Your task to perform on an android device: toggle sleep mode Image 0: 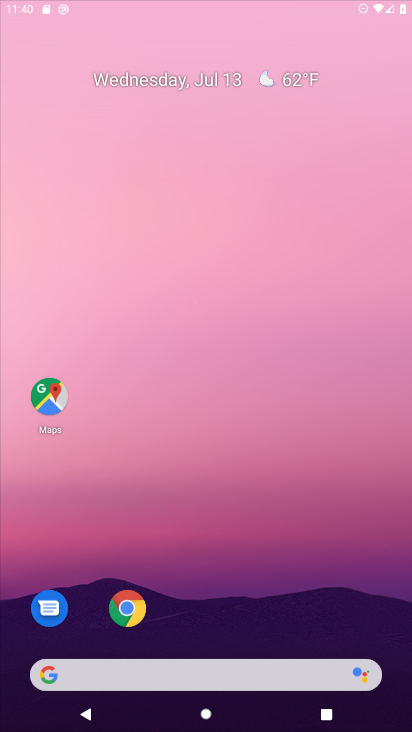
Step 0: drag from (246, 630) to (265, 222)
Your task to perform on an android device: toggle sleep mode Image 1: 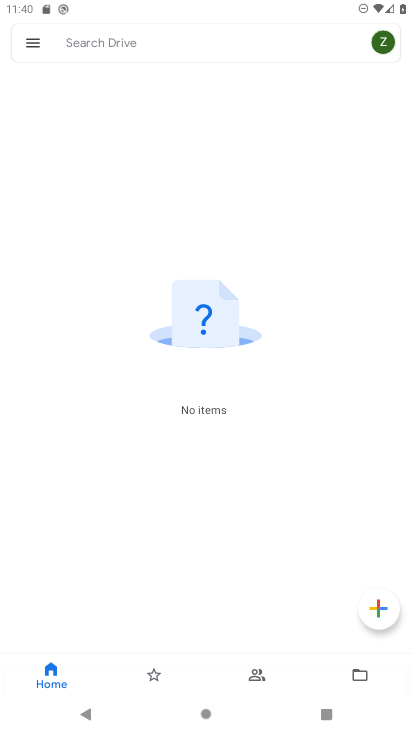
Step 1: press home button
Your task to perform on an android device: toggle sleep mode Image 2: 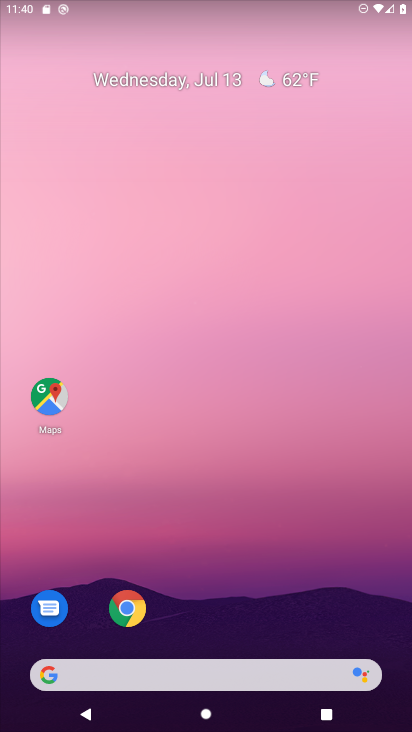
Step 2: click (283, 179)
Your task to perform on an android device: toggle sleep mode Image 3: 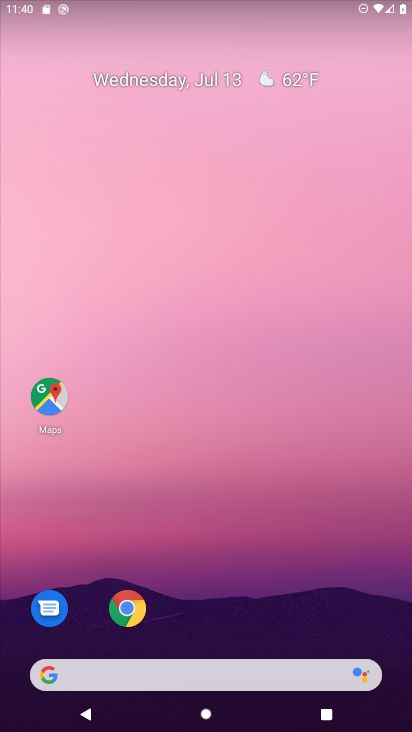
Step 3: drag from (258, 727) to (286, 135)
Your task to perform on an android device: toggle sleep mode Image 4: 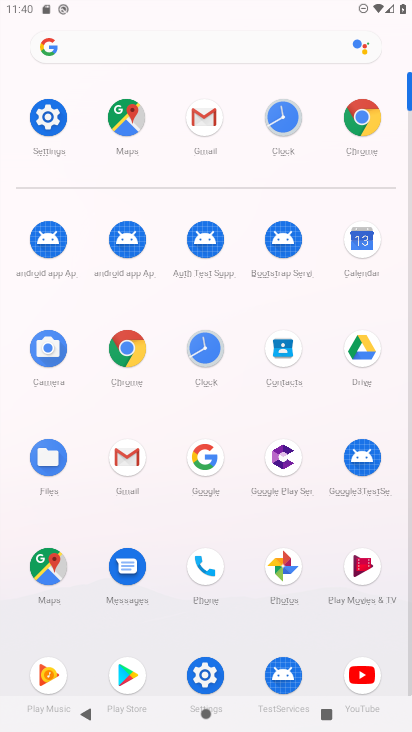
Step 4: click (46, 116)
Your task to perform on an android device: toggle sleep mode Image 5: 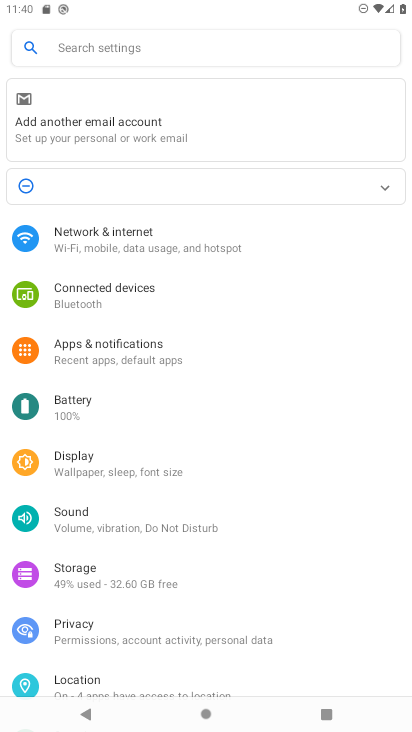
Step 5: click (99, 235)
Your task to perform on an android device: toggle sleep mode Image 6: 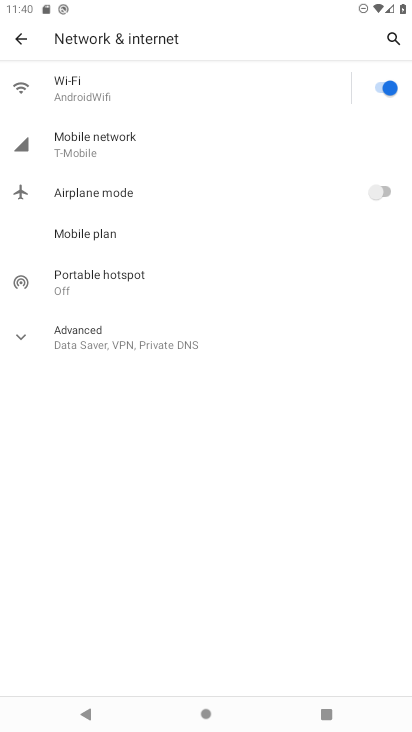
Step 6: click (20, 38)
Your task to perform on an android device: toggle sleep mode Image 7: 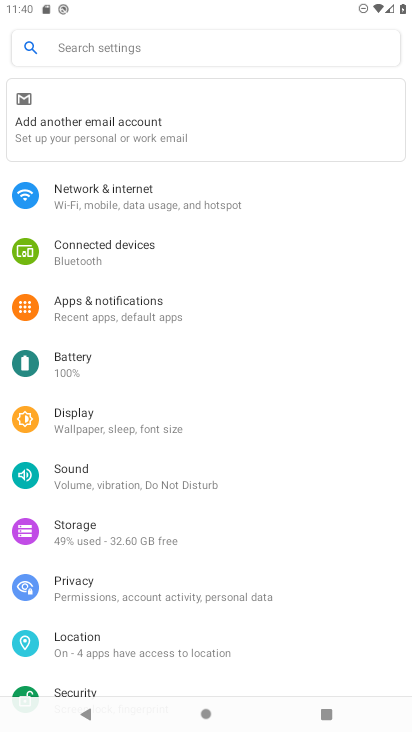
Step 7: drag from (169, 625) to (176, 400)
Your task to perform on an android device: toggle sleep mode Image 8: 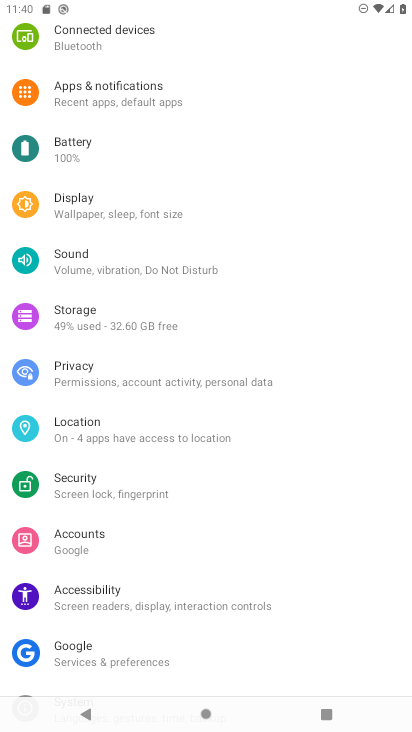
Step 8: click (131, 217)
Your task to perform on an android device: toggle sleep mode Image 9: 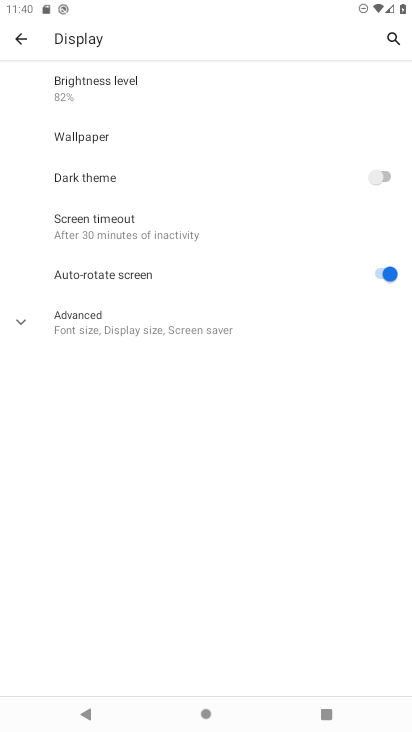
Step 9: task complete